Your task to perform on an android device: find which apps use the phone's location Image 0: 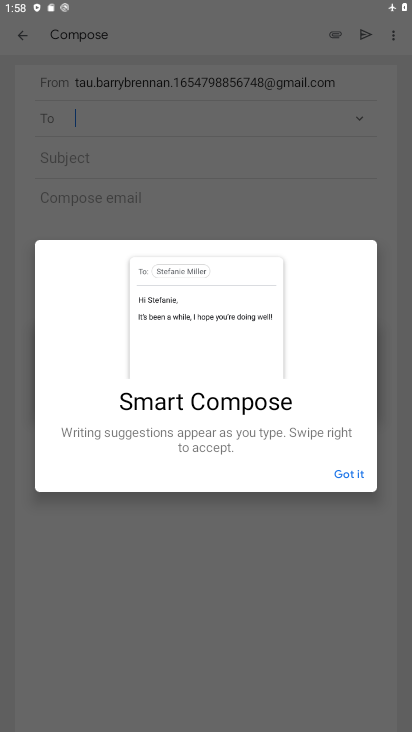
Step 0: press home button
Your task to perform on an android device: find which apps use the phone's location Image 1: 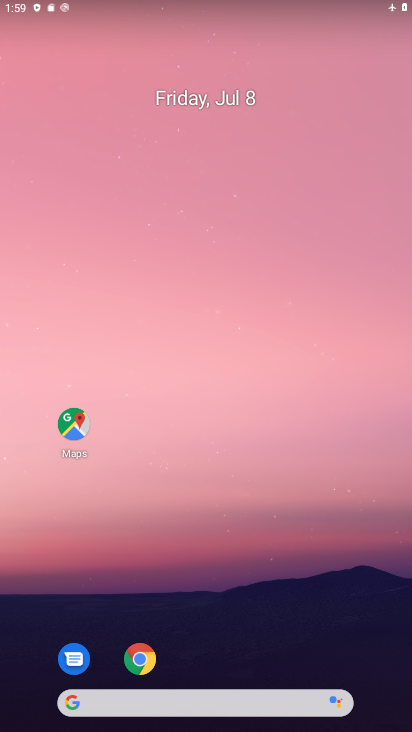
Step 1: drag from (29, 585) to (211, 170)
Your task to perform on an android device: find which apps use the phone's location Image 2: 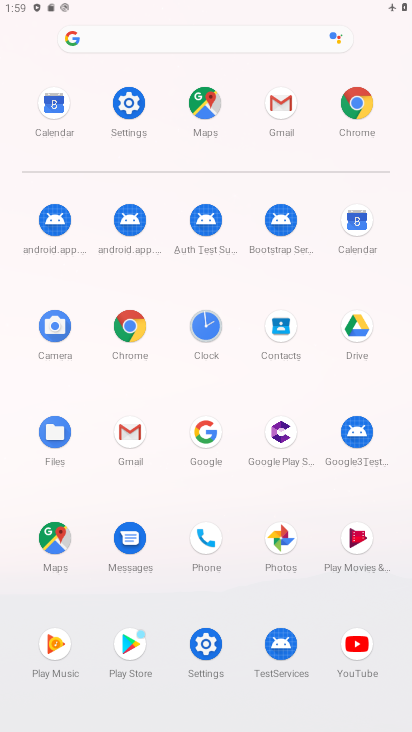
Step 2: click (118, 109)
Your task to perform on an android device: find which apps use the phone's location Image 3: 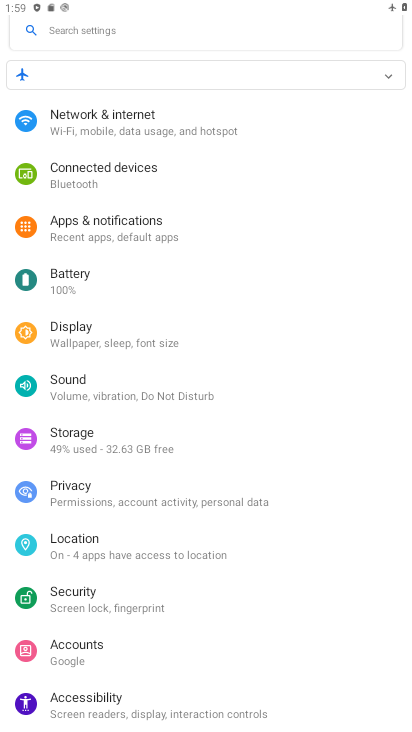
Step 3: click (115, 543)
Your task to perform on an android device: find which apps use the phone's location Image 4: 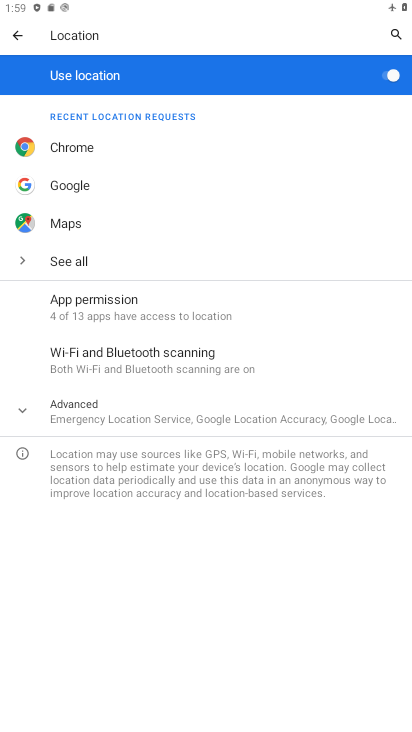
Step 4: click (103, 303)
Your task to perform on an android device: find which apps use the phone's location Image 5: 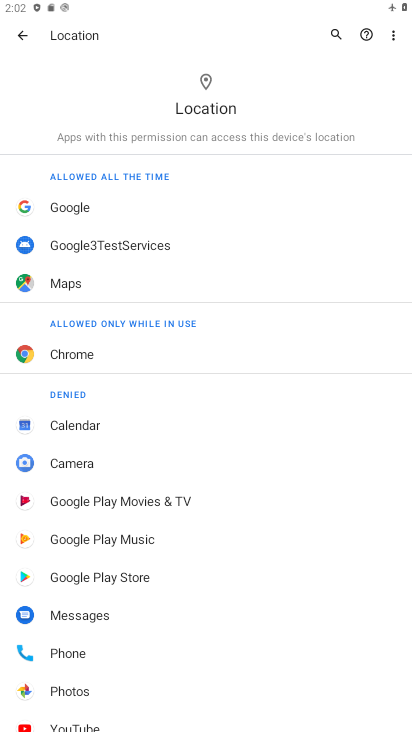
Step 5: task complete